Your task to perform on an android device: turn on javascript in the chrome app Image 0: 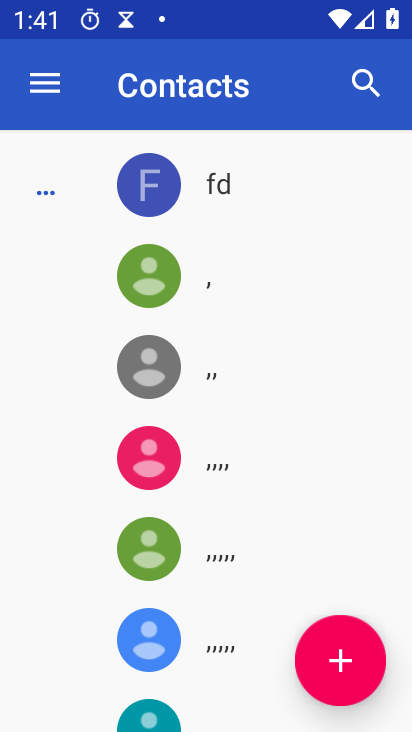
Step 0: press home button
Your task to perform on an android device: turn on javascript in the chrome app Image 1: 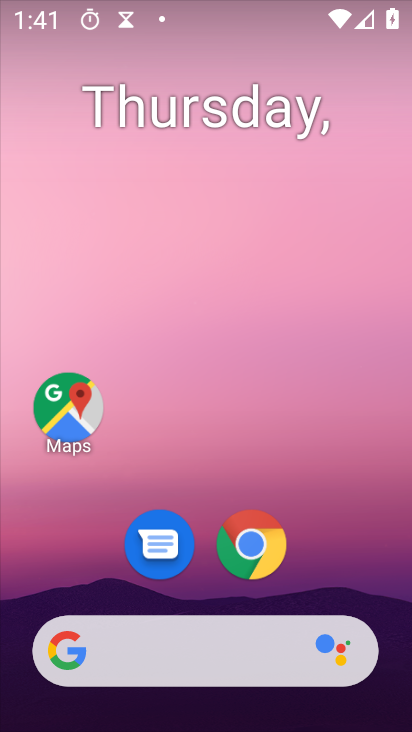
Step 1: click (252, 552)
Your task to perform on an android device: turn on javascript in the chrome app Image 2: 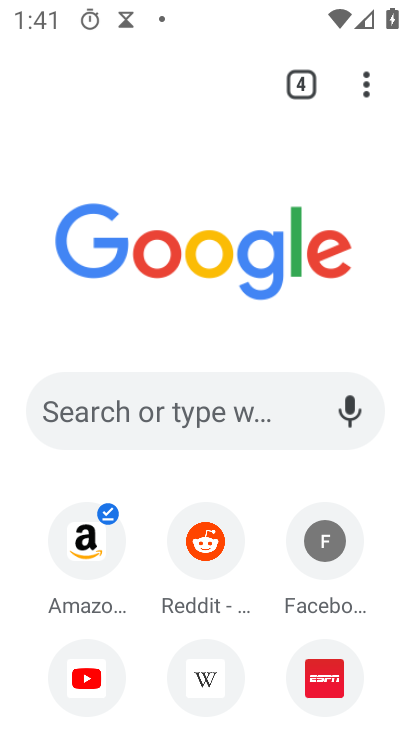
Step 2: click (364, 92)
Your task to perform on an android device: turn on javascript in the chrome app Image 3: 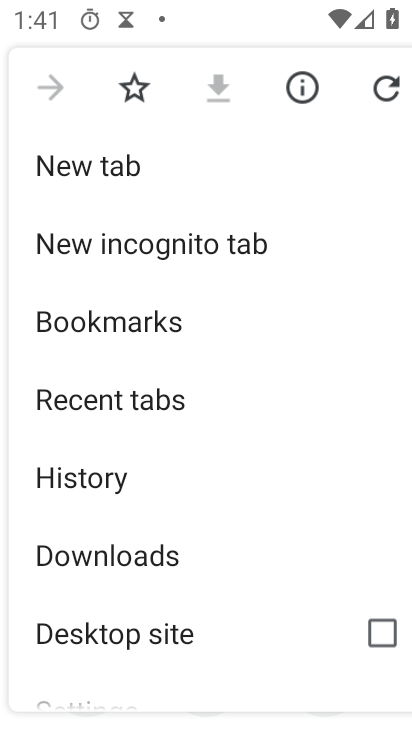
Step 3: drag from (118, 631) to (112, 311)
Your task to perform on an android device: turn on javascript in the chrome app Image 4: 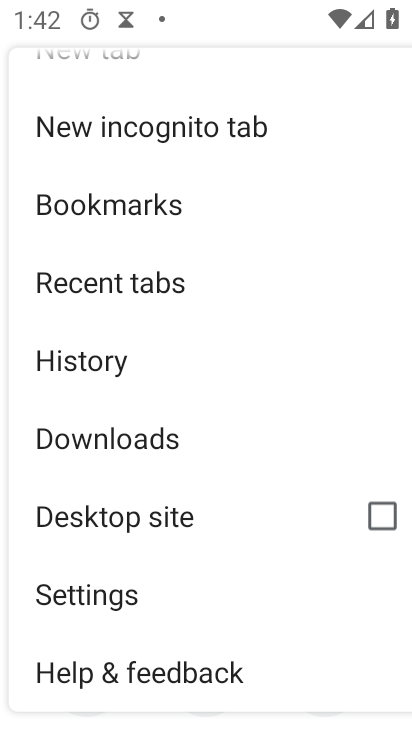
Step 4: click (106, 597)
Your task to perform on an android device: turn on javascript in the chrome app Image 5: 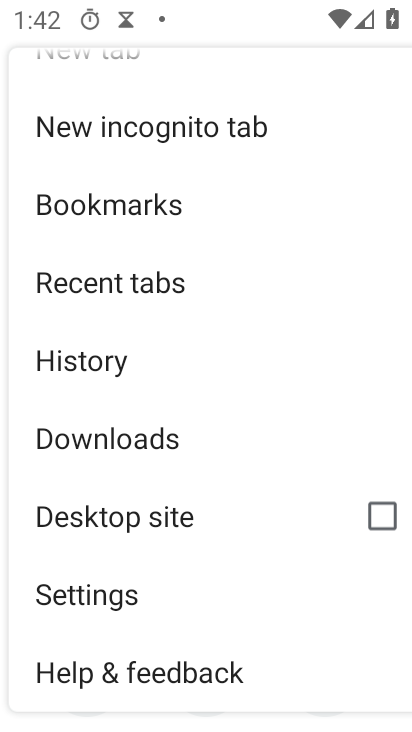
Step 5: click (106, 597)
Your task to perform on an android device: turn on javascript in the chrome app Image 6: 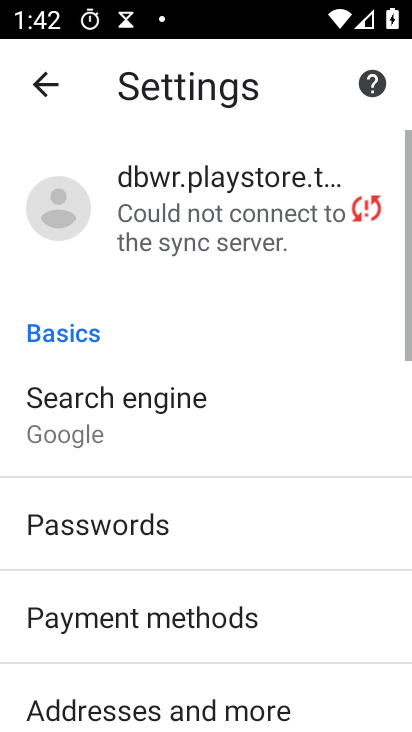
Step 6: drag from (116, 663) to (123, 208)
Your task to perform on an android device: turn on javascript in the chrome app Image 7: 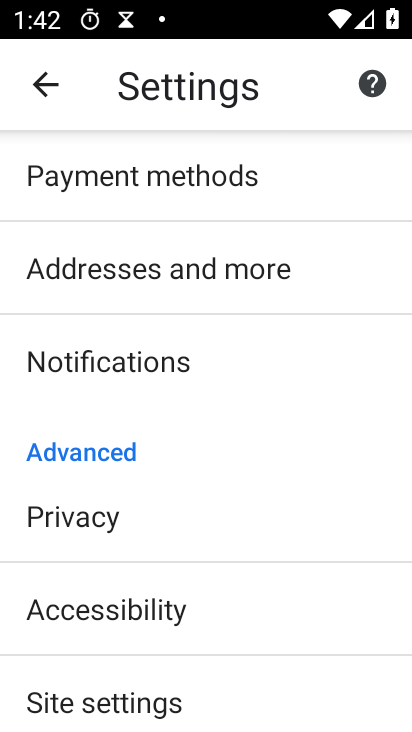
Step 7: drag from (156, 684) to (159, 319)
Your task to perform on an android device: turn on javascript in the chrome app Image 8: 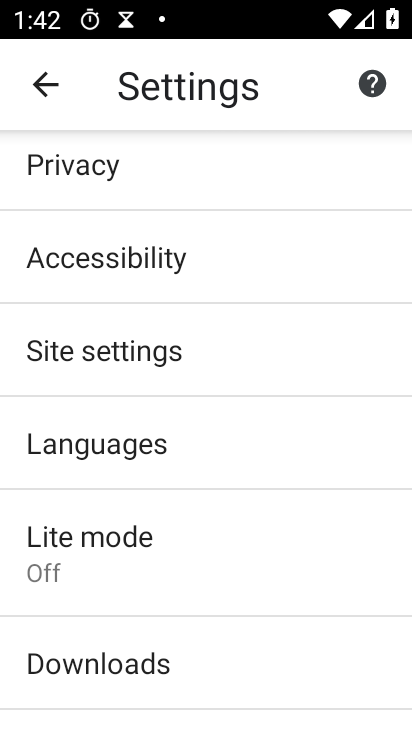
Step 8: click (111, 348)
Your task to perform on an android device: turn on javascript in the chrome app Image 9: 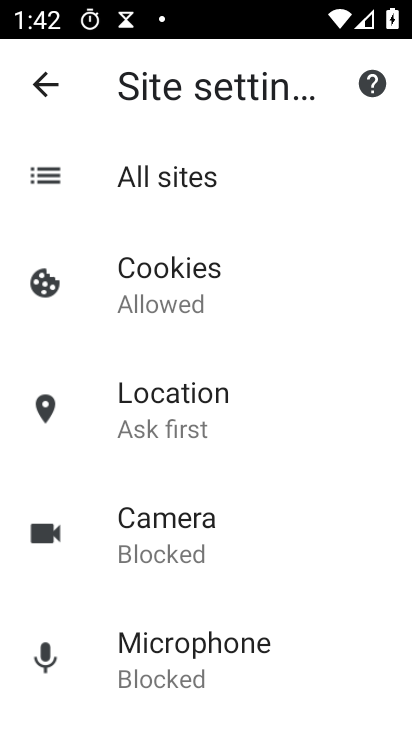
Step 9: drag from (141, 661) to (158, 281)
Your task to perform on an android device: turn on javascript in the chrome app Image 10: 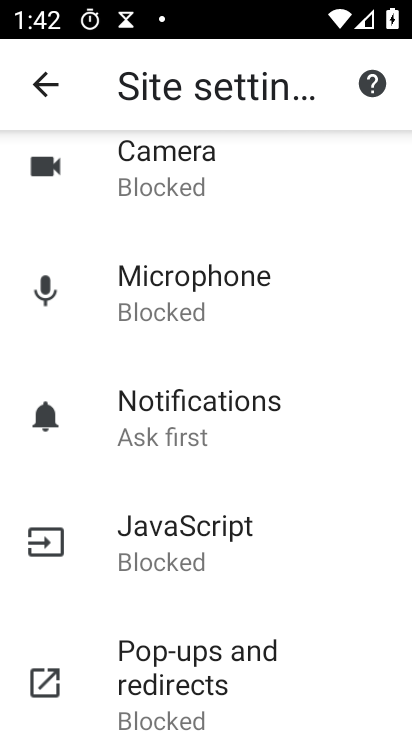
Step 10: click (181, 523)
Your task to perform on an android device: turn on javascript in the chrome app Image 11: 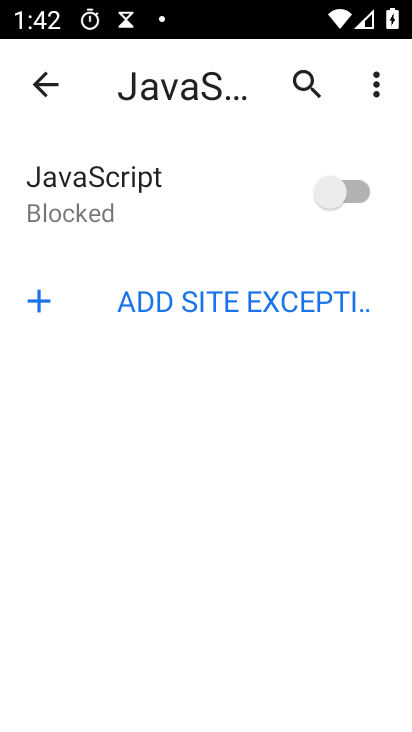
Step 11: click (358, 179)
Your task to perform on an android device: turn on javascript in the chrome app Image 12: 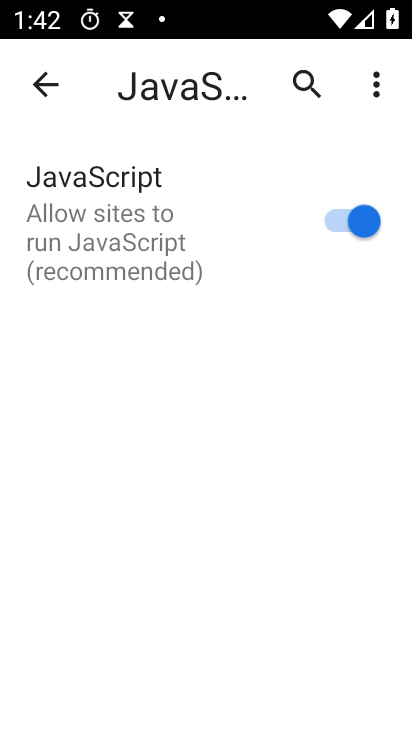
Step 12: task complete